Your task to perform on an android device: change the clock display to analog Image 0: 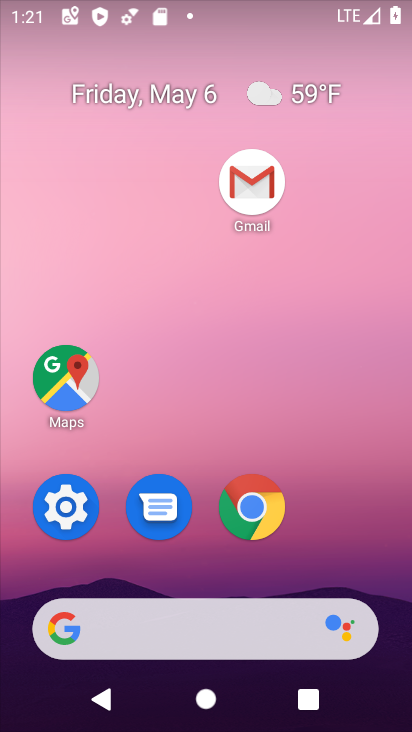
Step 0: drag from (331, 522) to (319, 74)
Your task to perform on an android device: change the clock display to analog Image 1: 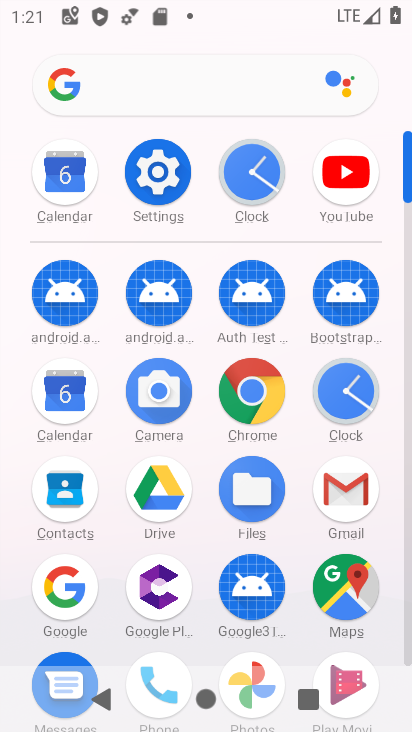
Step 1: click (333, 387)
Your task to perform on an android device: change the clock display to analog Image 2: 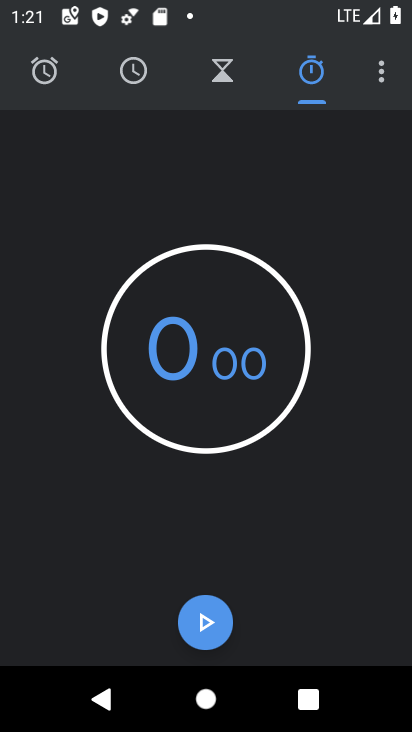
Step 2: click (379, 77)
Your task to perform on an android device: change the clock display to analog Image 3: 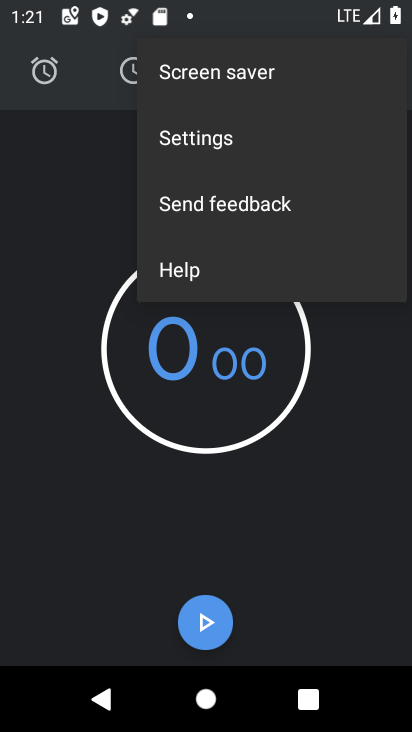
Step 3: click (209, 139)
Your task to perform on an android device: change the clock display to analog Image 4: 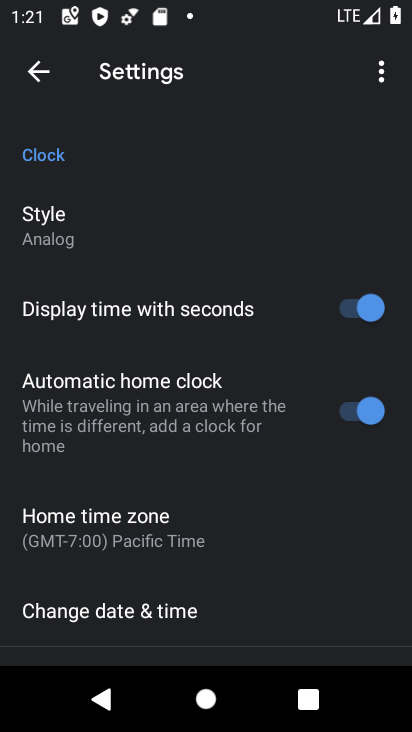
Step 4: task complete